Your task to perform on an android device: Find coffee shops on Maps Image 0: 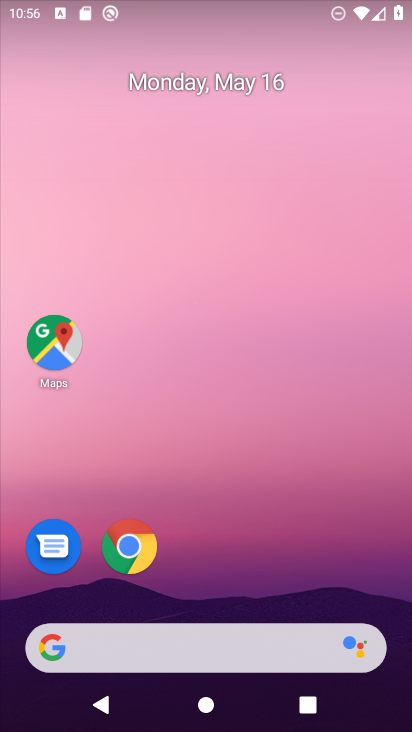
Step 0: click (78, 330)
Your task to perform on an android device: Find coffee shops on Maps Image 1: 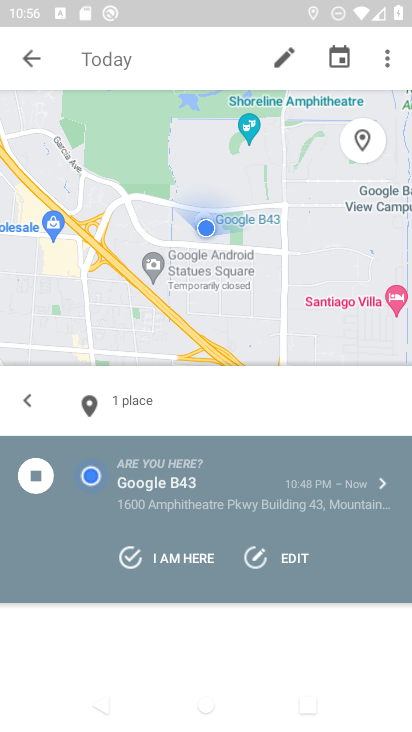
Step 1: click (52, 77)
Your task to perform on an android device: Find coffee shops on Maps Image 2: 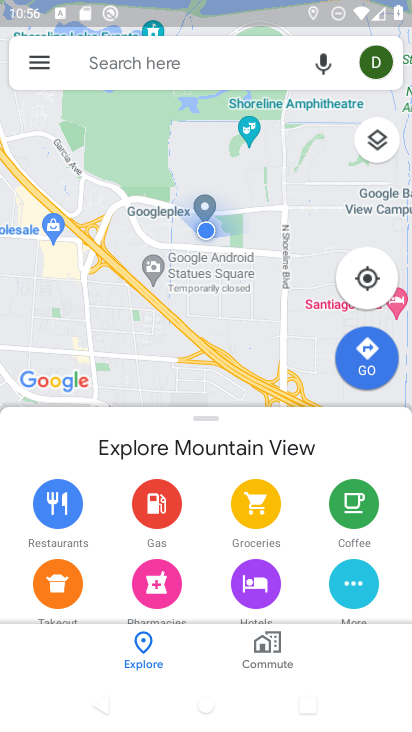
Step 2: click (107, 72)
Your task to perform on an android device: Find coffee shops on Maps Image 3: 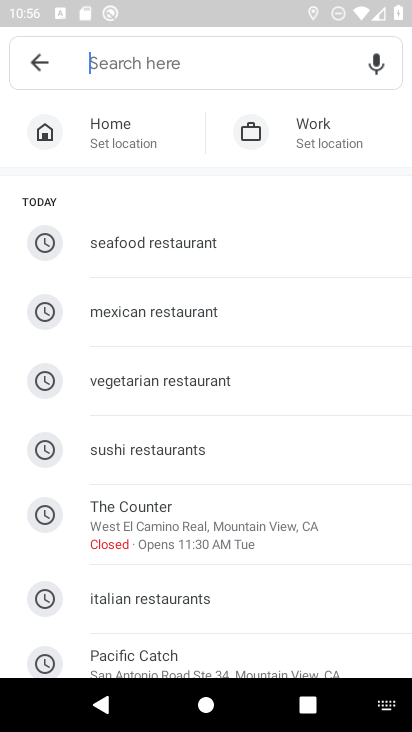
Step 3: type "coffee"
Your task to perform on an android device: Find coffee shops on Maps Image 4: 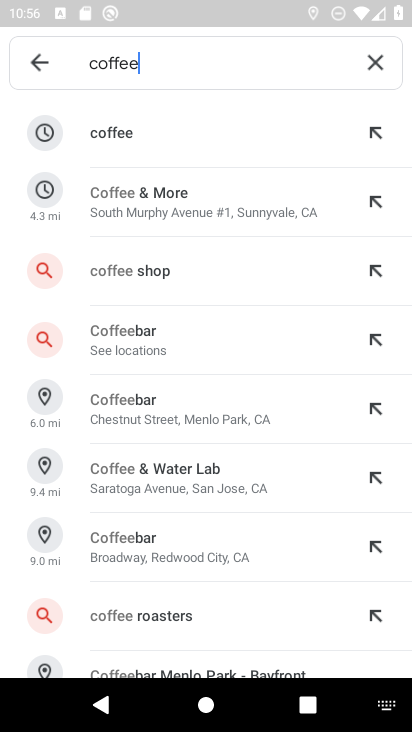
Step 4: click (90, 259)
Your task to perform on an android device: Find coffee shops on Maps Image 5: 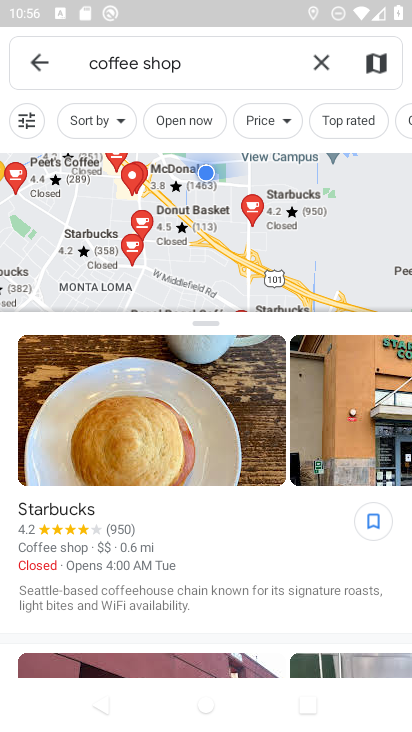
Step 5: task complete